Your task to perform on an android device: Look up the best rated bike on Walmart Image 0: 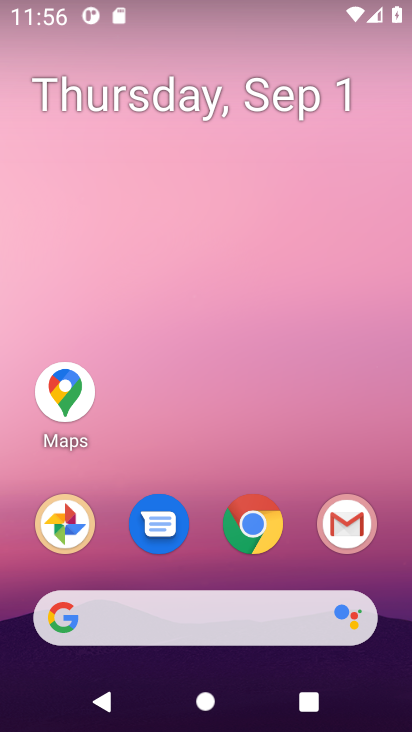
Step 0: click (291, 612)
Your task to perform on an android device: Look up the best rated bike on Walmart Image 1: 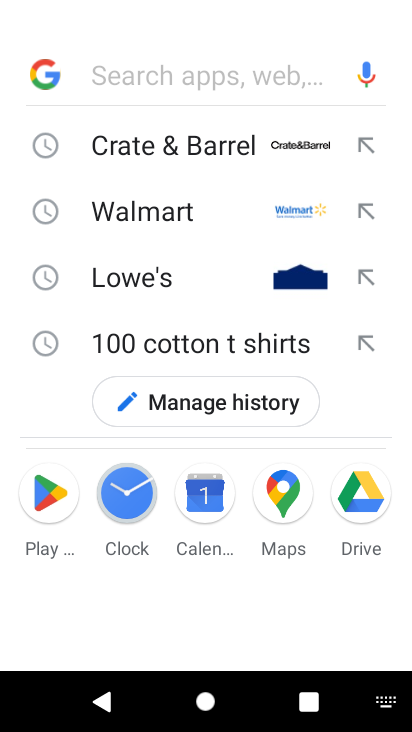
Step 1: press enter
Your task to perform on an android device: Look up the best rated bike on Walmart Image 2: 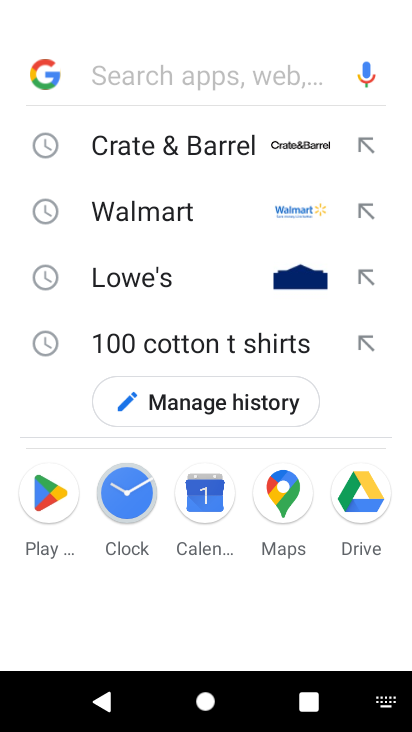
Step 2: type "walmart"
Your task to perform on an android device: Look up the best rated bike on Walmart Image 3: 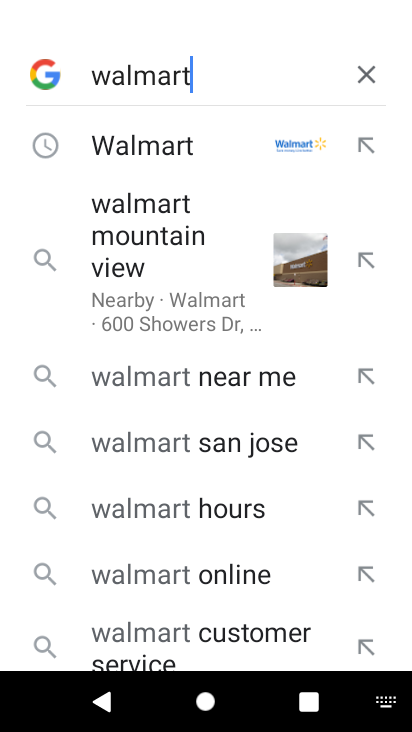
Step 3: click (168, 148)
Your task to perform on an android device: Look up the best rated bike on Walmart Image 4: 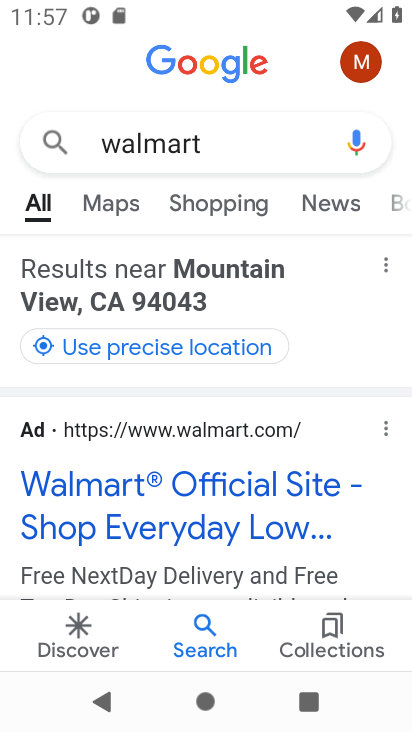
Step 4: click (263, 498)
Your task to perform on an android device: Look up the best rated bike on Walmart Image 5: 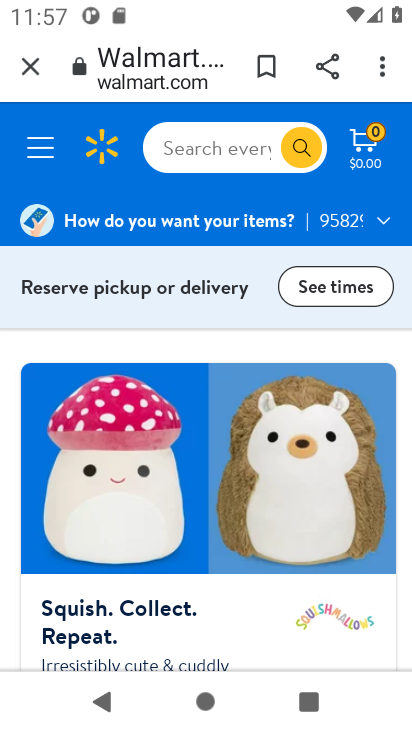
Step 5: click (204, 146)
Your task to perform on an android device: Look up the best rated bike on Walmart Image 6: 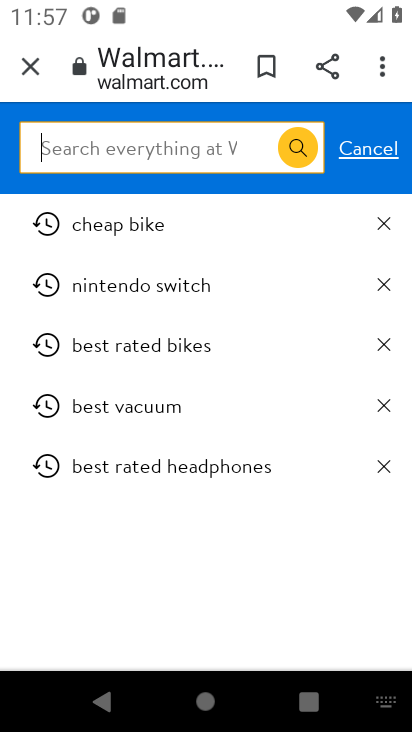
Step 6: click (206, 343)
Your task to perform on an android device: Look up the best rated bike on Walmart Image 7: 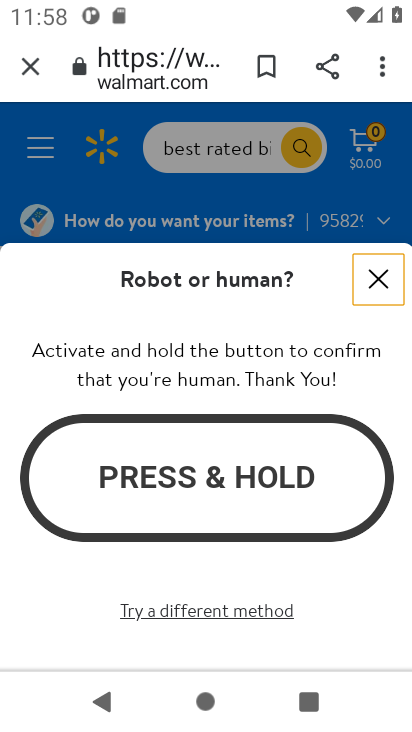
Step 7: click (378, 269)
Your task to perform on an android device: Look up the best rated bike on Walmart Image 8: 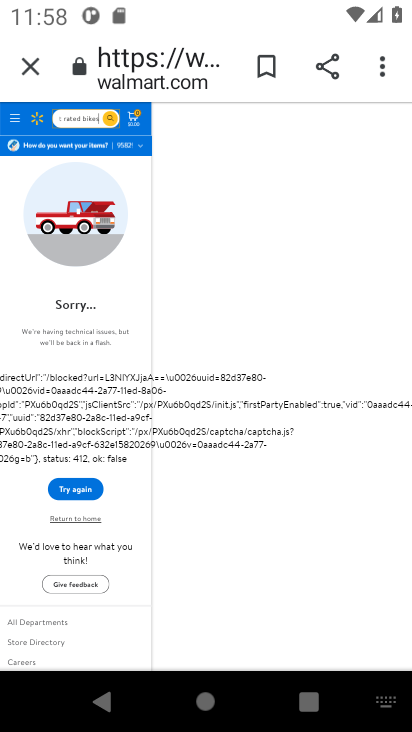
Step 8: task complete